Your task to perform on an android device: check storage Image 0: 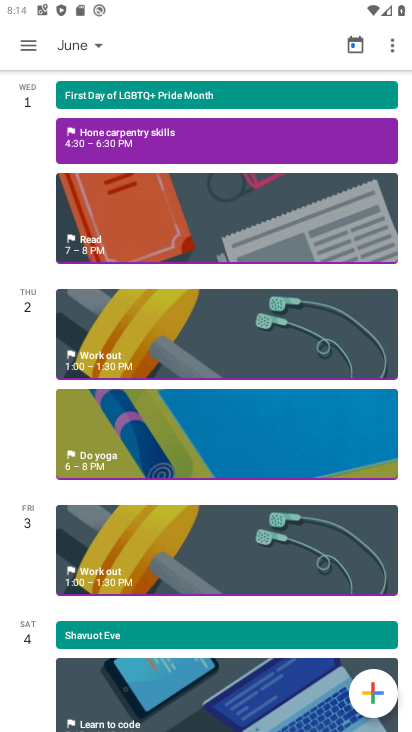
Step 0: press home button
Your task to perform on an android device: check storage Image 1: 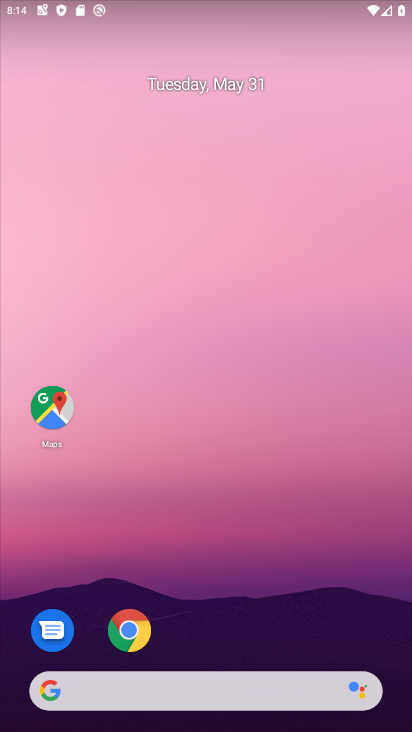
Step 1: drag from (221, 653) to (308, 250)
Your task to perform on an android device: check storage Image 2: 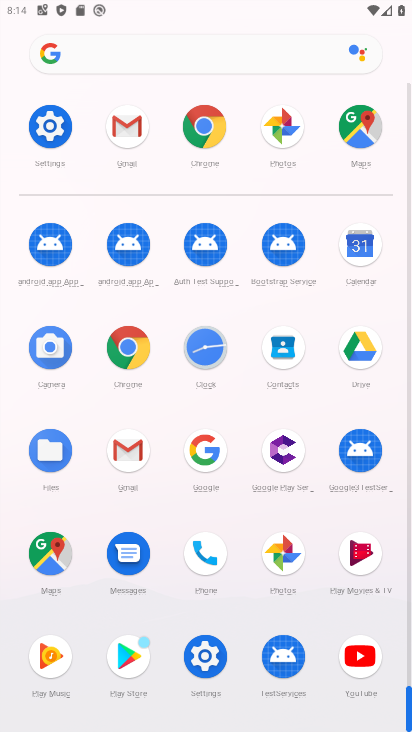
Step 2: click (45, 106)
Your task to perform on an android device: check storage Image 3: 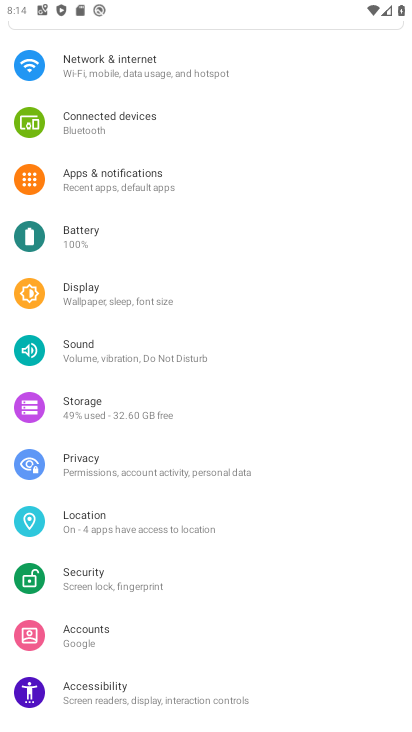
Step 3: click (107, 398)
Your task to perform on an android device: check storage Image 4: 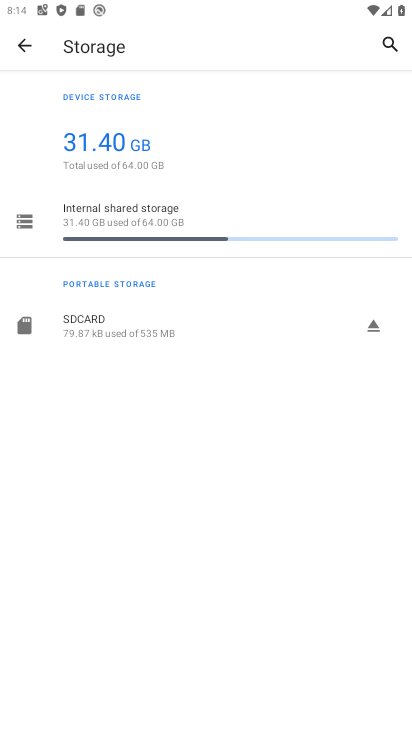
Step 4: task complete